Your task to perform on an android device: Open Google Image 0: 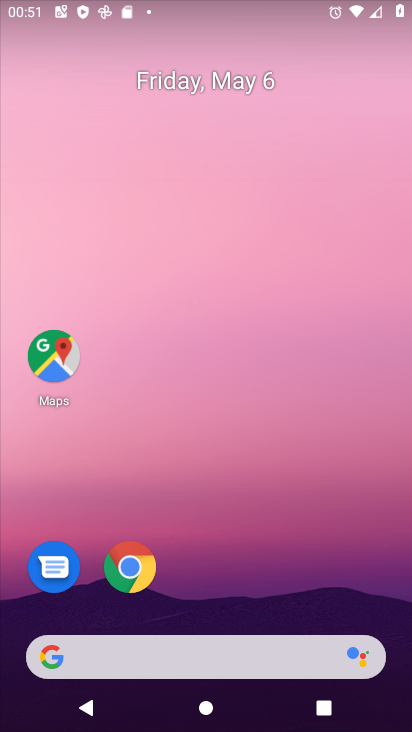
Step 0: drag from (195, 601) to (196, 191)
Your task to perform on an android device: Open Google Image 1: 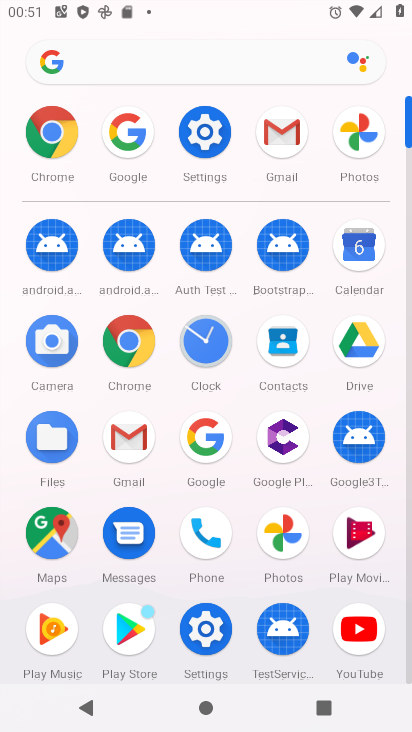
Step 1: click (203, 424)
Your task to perform on an android device: Open Google Image 2: 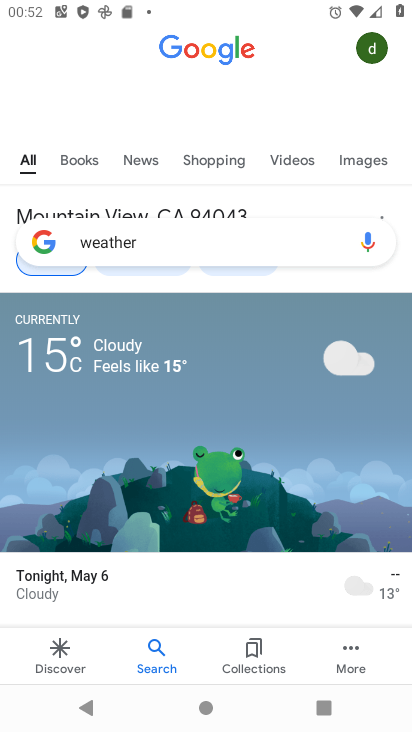
Step 2: task complete